Your task to perform on an android device: turn on improve location accuracy Image 0: 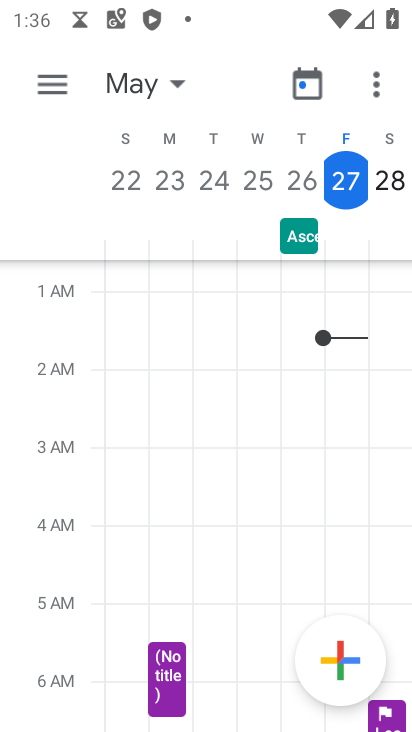
Step 0: press home button
Your task to perform on an android device: turn on improve location accuracy Image 1: 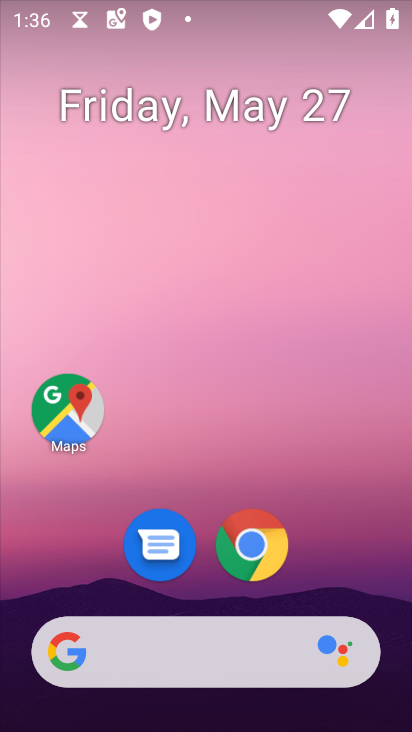
Step 1: drag from (329, 554) to (203, 0)
Your task to perform on an android device: turn on improve location accuracy Image 2: 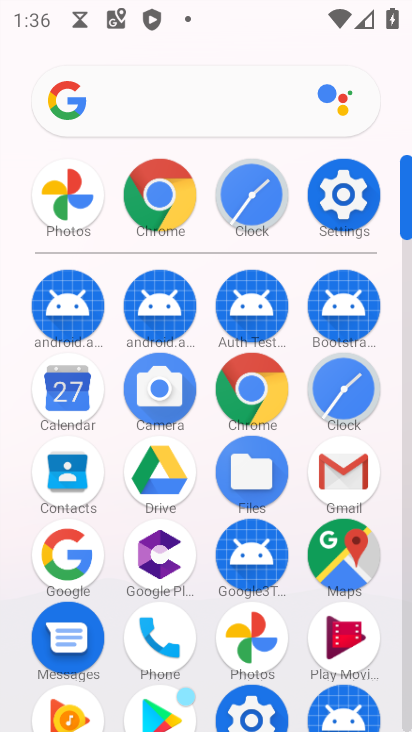
Step 2: click (349, 204)
Your task to perform on an android device: turn on improve location accuracy Image 3: 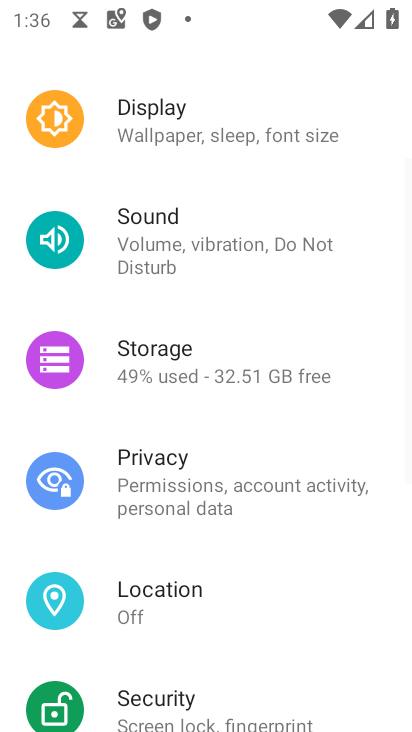
Step 3: click (245, 611)
Your task to perform on an android device: turn on improve location accuracy Image 4: 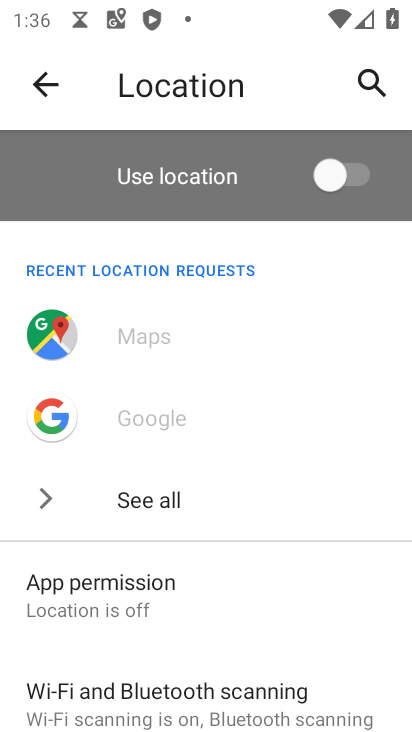
Step 4: drag from (248, 606) to (233, 227)
Your task to perform on an android device: turn on improve location accuracy Image 5: 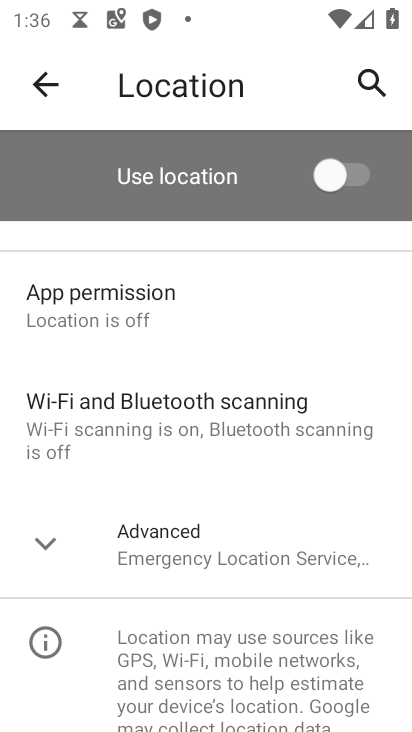
Step 5: click (231, 530)
Your task to perform on an android device: turn on improve location accuracy Image 6: 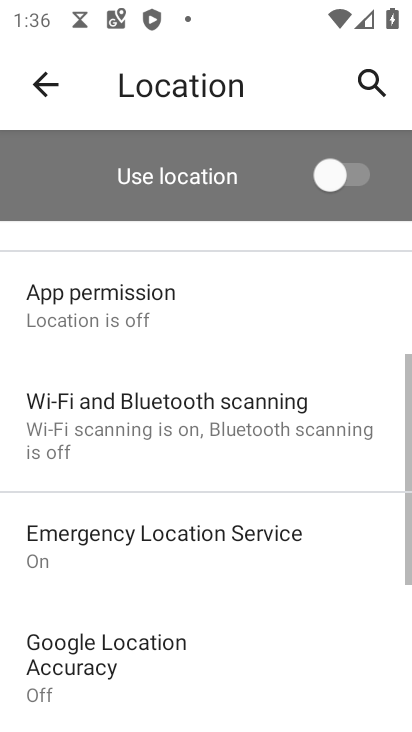
Step 6: drag from (252, 651) to (295, 241)
Your task to perform on an android device: turn on improve location accuracy Image 7: 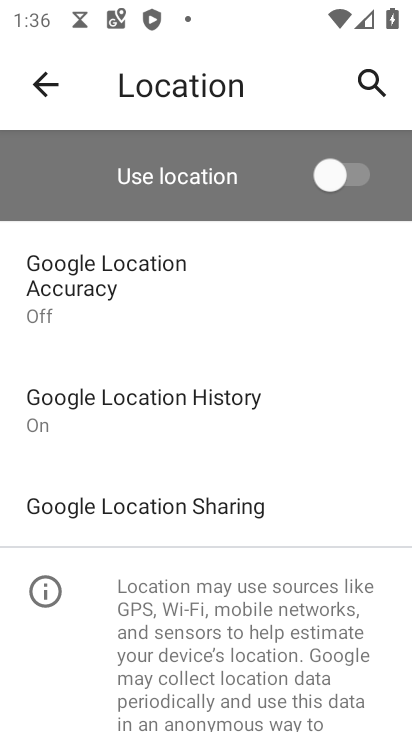
Step 7: click (181, 282)
Your task to perform on an android device: turn on improve location accuracy Image 8: 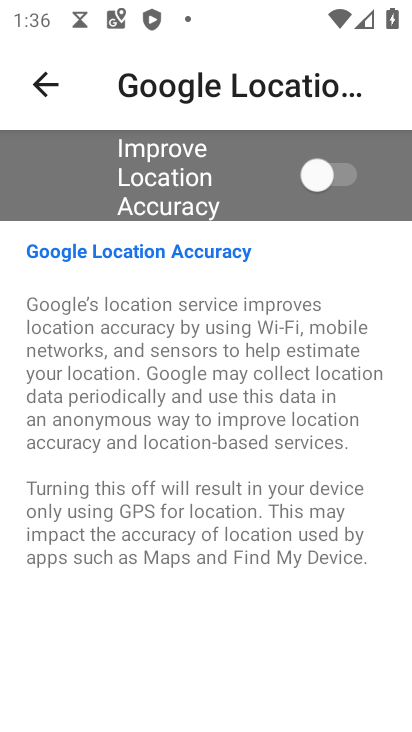
Step 8: click (325, 167)
Your task to perform on an android device: turn on improve location accuracy Image 9: 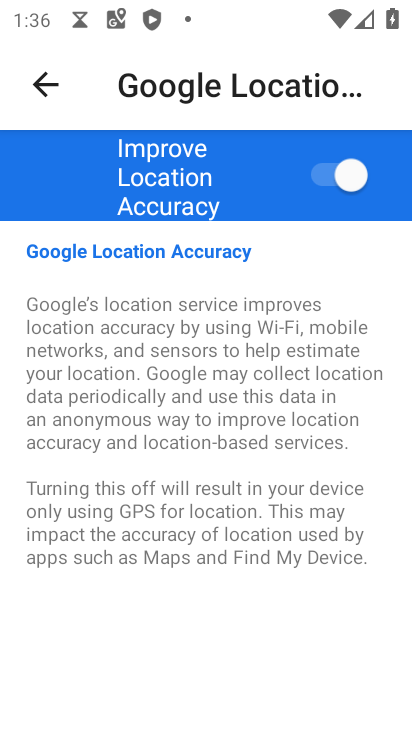
Step 9: task complete